Your task to perform on an android device: toggle translation in the chrome app Image 0: 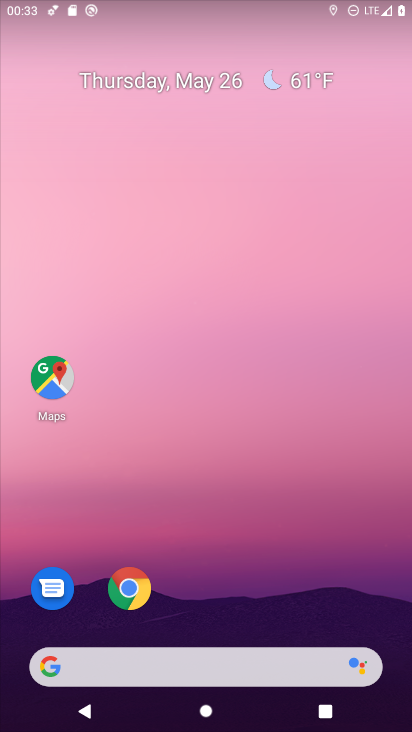
Step 0: click (275, 545)
Your task to perform on an android device: toggle translation in the chrome app Image 1: 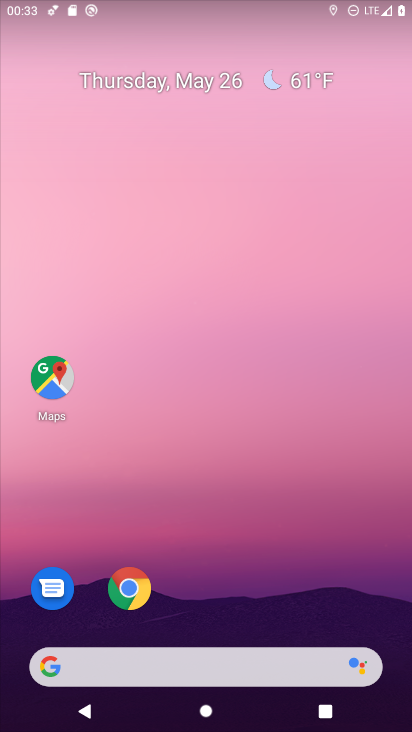
Step 1: click (275, 545)
Your task to perform on an android device: toggle translation in the chrome app Image 2: 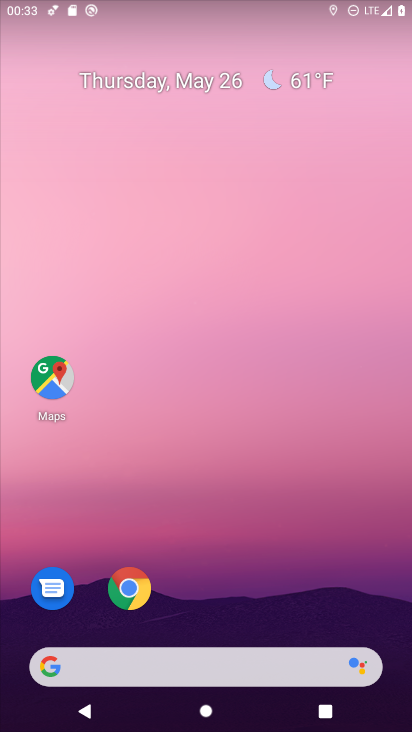
Step 2: click (132, 589)
Your task to perform on an android device: toggle translation in the chrome app Image 3: 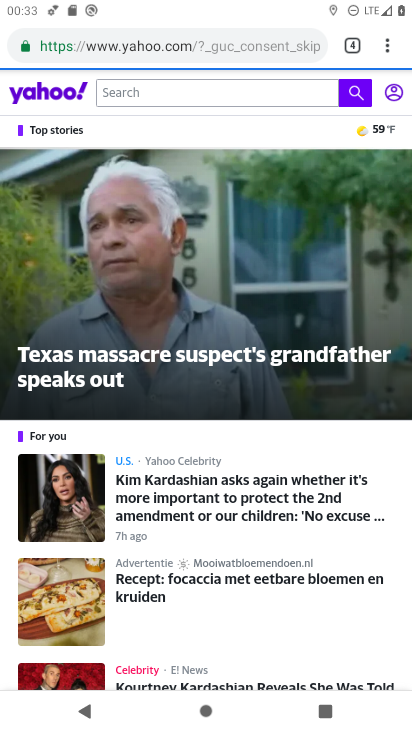
Step 3: click (387, 45)
Your task to perform on an android device: toggle translation in the chrome app Image 4: 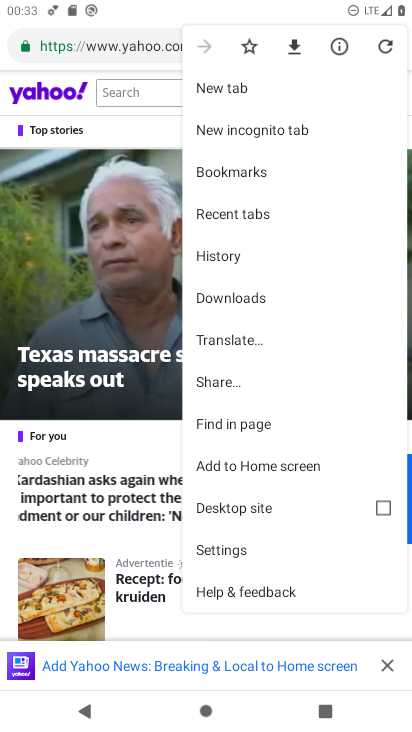
Step 4: click (234, 543)
Your task to perform on an android device: toggle translation in the chrome app Image 5: 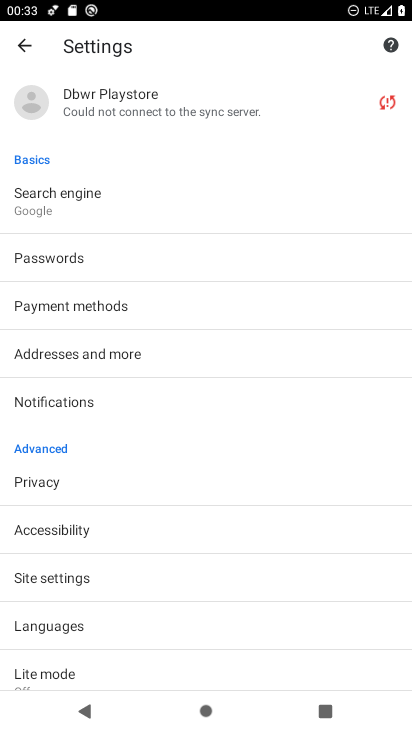
Step 5: click (64, 628)
Your task to perform on an android device: toggle translation in the chrome app Image 6: 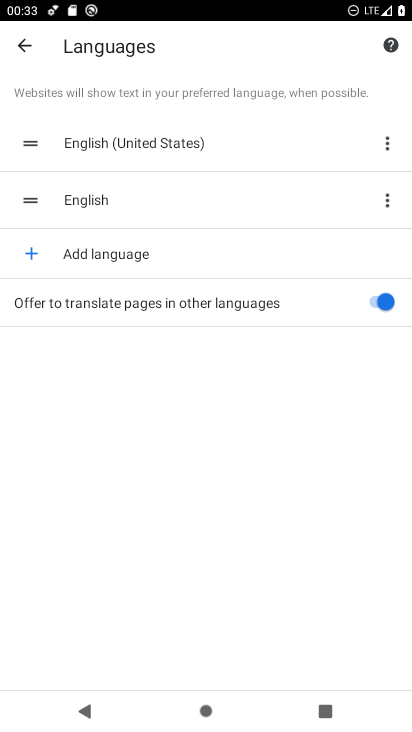
Step 6: click (372, 302)
Your task to perform on an android device: toggle translation in the chrome app Image 7: 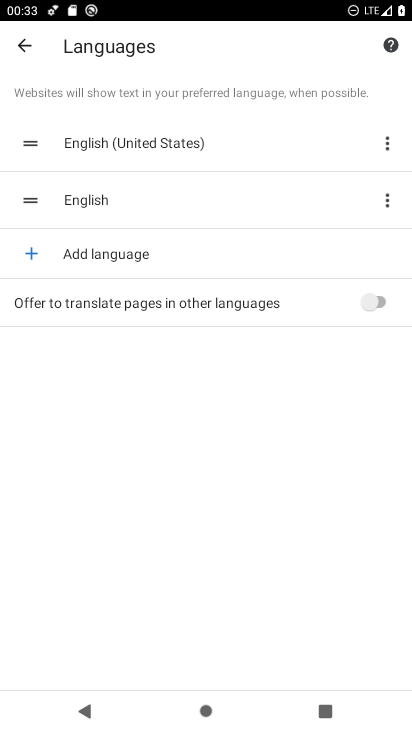
Step 7: task complete